Your task to perform on an android device: Open Chrome and go to the settings page Image 0: 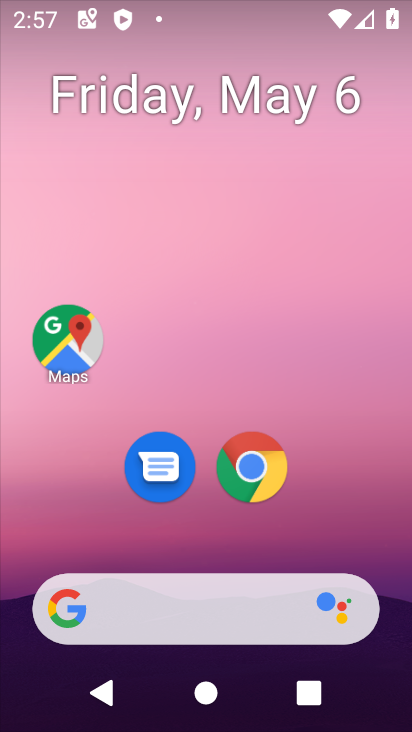
Step 0: click (231, 477)
Your task to perform on an android device: Open Chrome and go to the settings page Image 1: 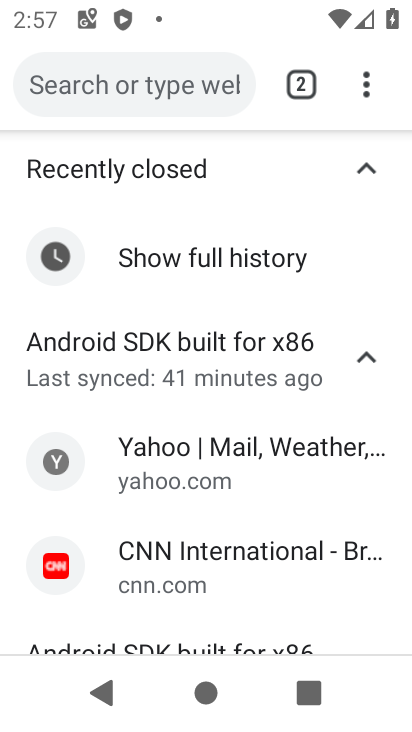
Step 1: task complete